Your task to perform on an android device: Open display settings Image 0: 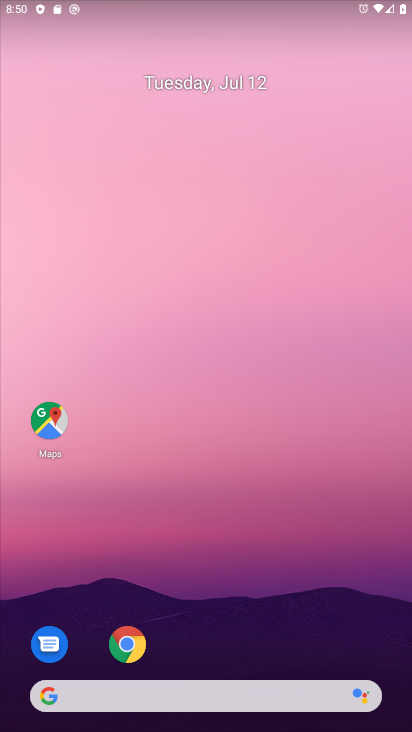
Step 0: drag from (44, 718) to (162, 210)
Your task to perform on an android device: Open display settings Image 1: 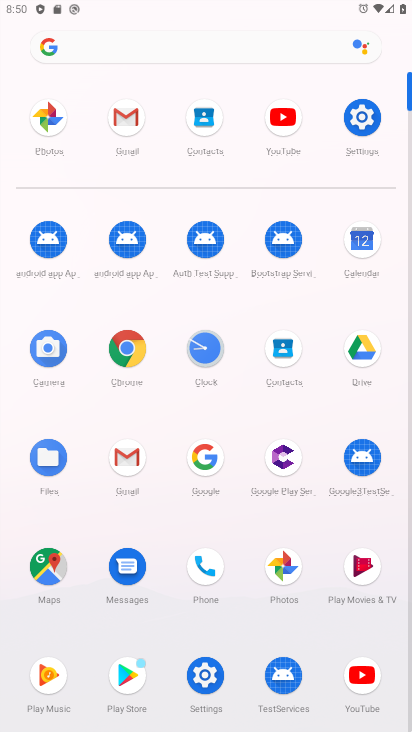
Step 1: click (206, 666)
Your task to perform on an android device: Open display settings Image 2: 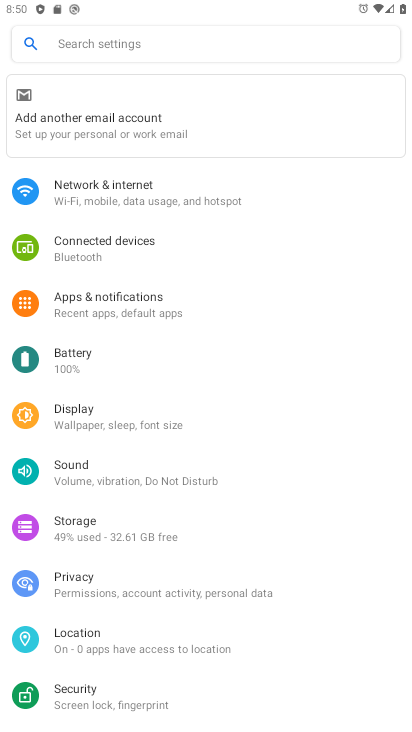
Step 2: click (115, 416)
Your task to perform on an android device: Open display settings Image 3: 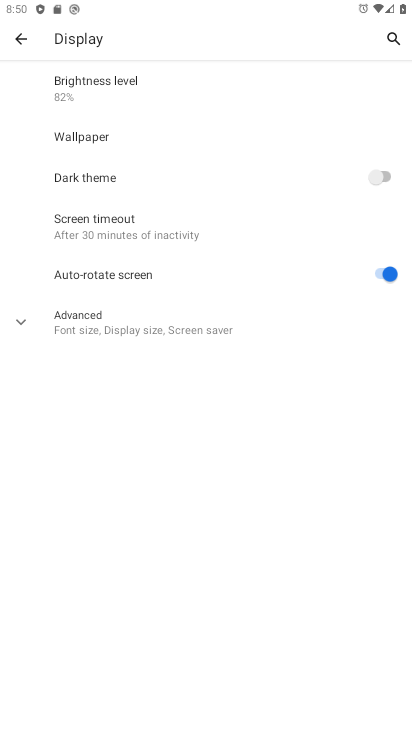
Step 3: task complete